Your task to perform on an android device: find photos in the google photos app Image 0: 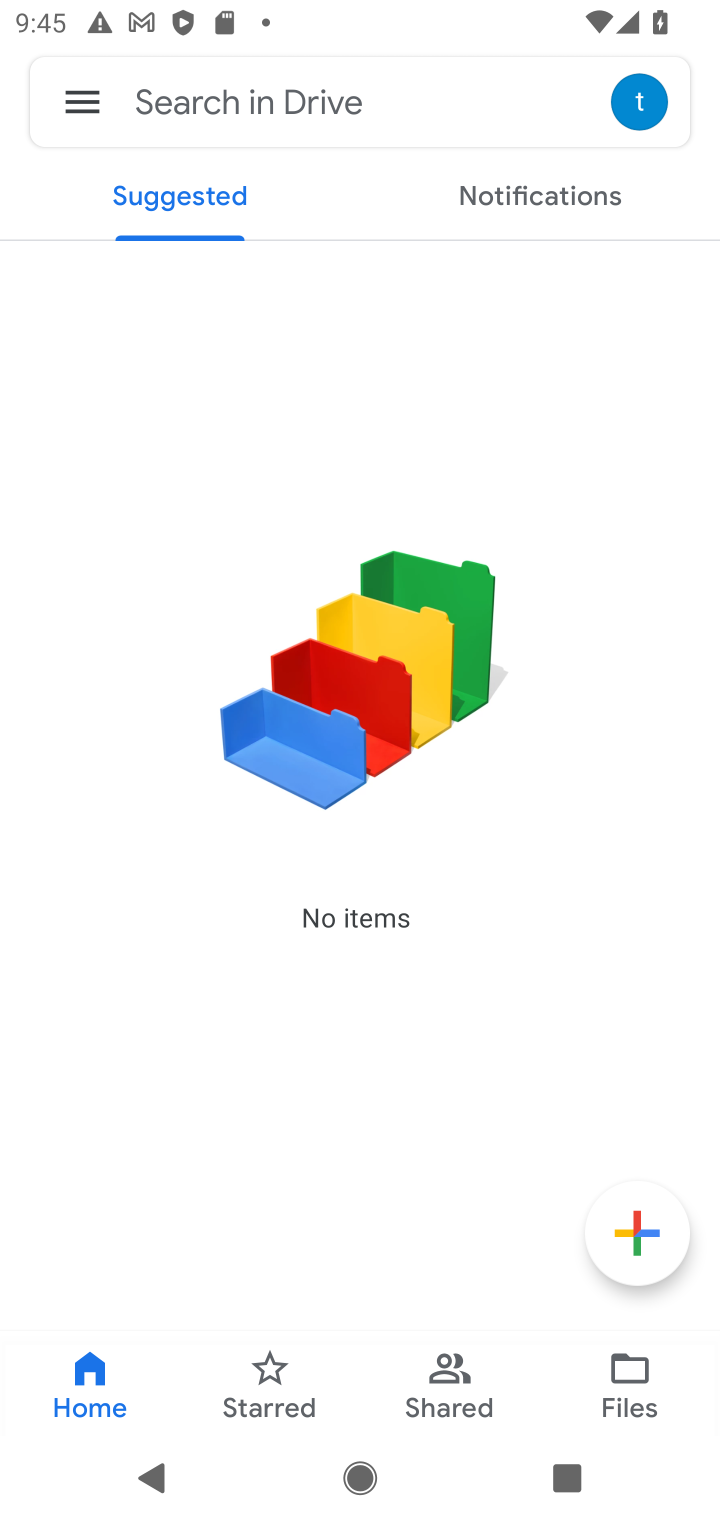
Step 0: press home button
Your task to perform on an android device: find photos in the google photos app Image 1: 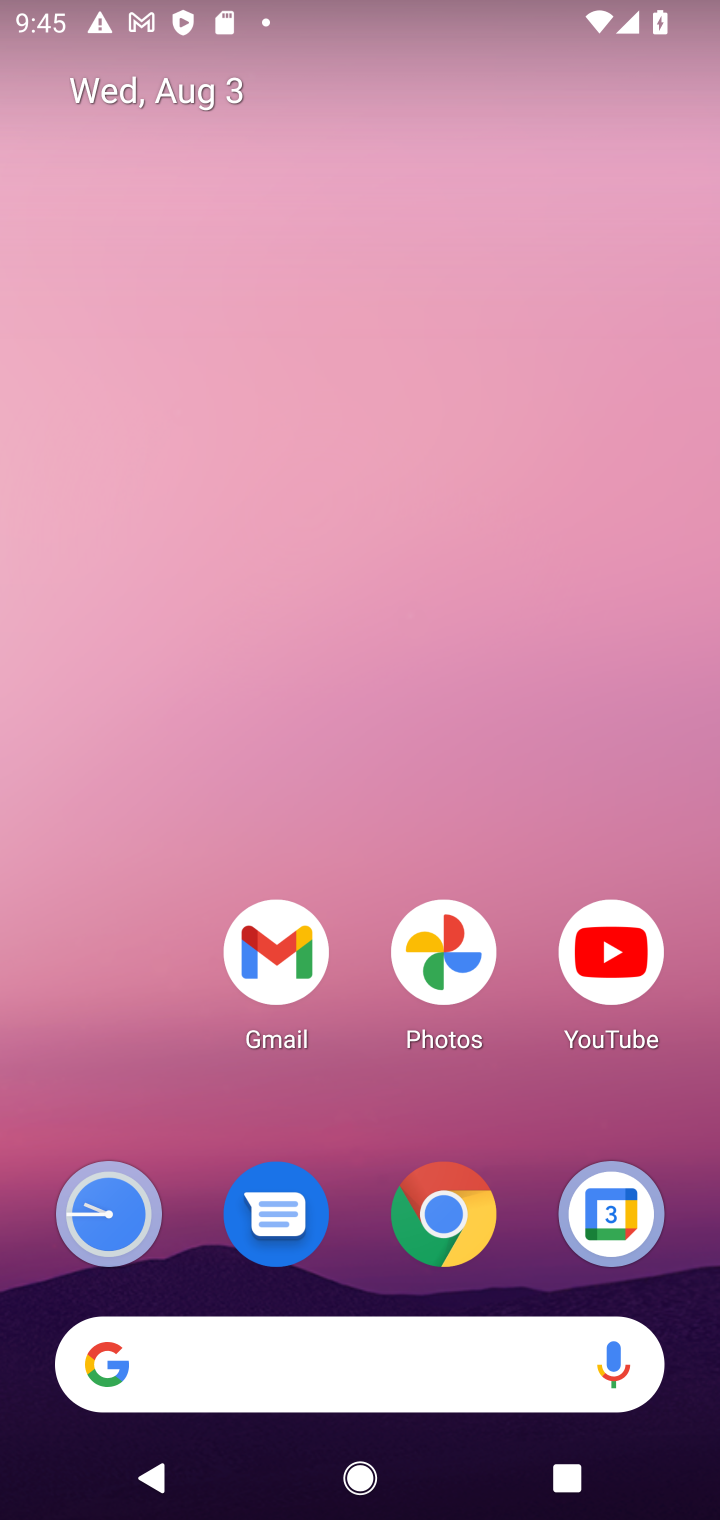
Step 1: click (105, 1038)
Your task to perform on an android device: find photos in the google photos app Image 2: 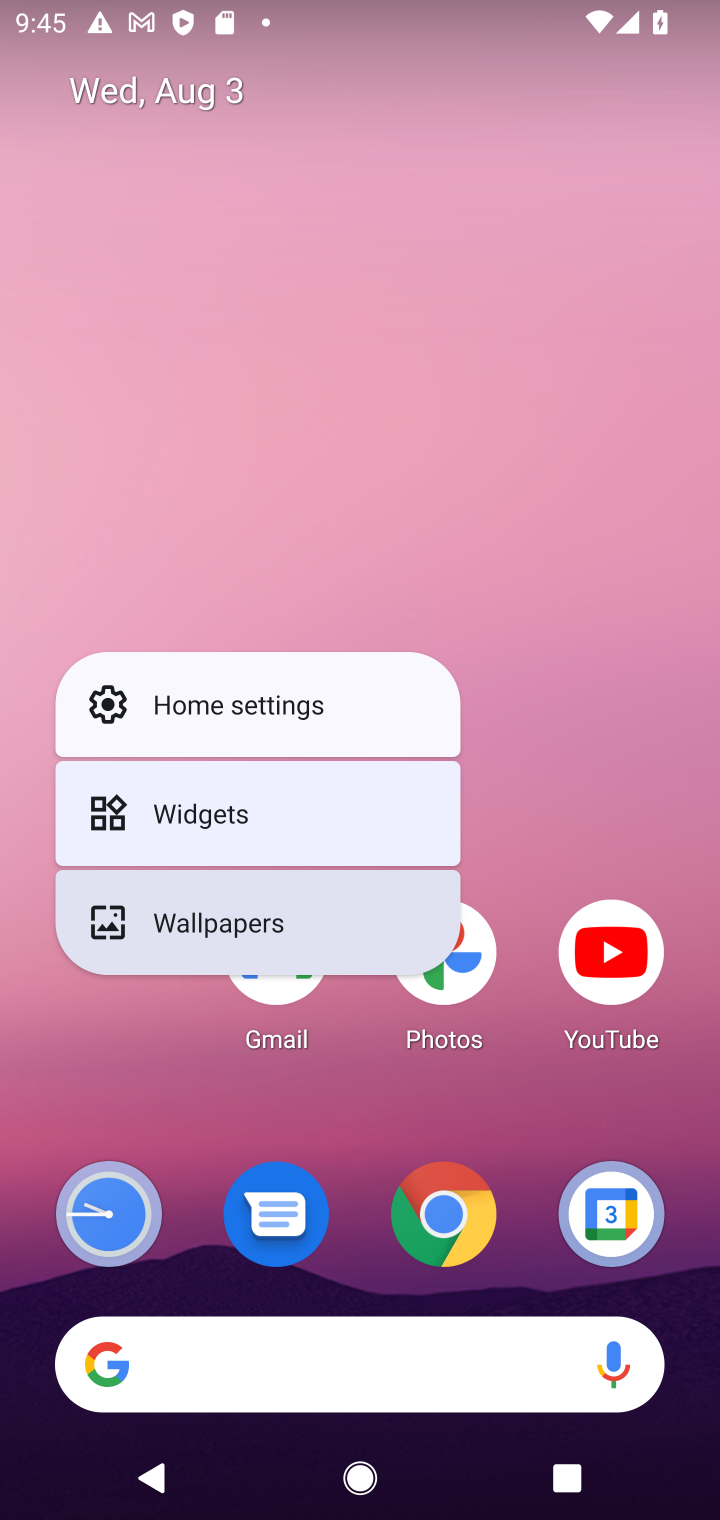
Step 2: click (176, 1097)
Your task to perform on an android device: find photos in the google photos app Image 3: 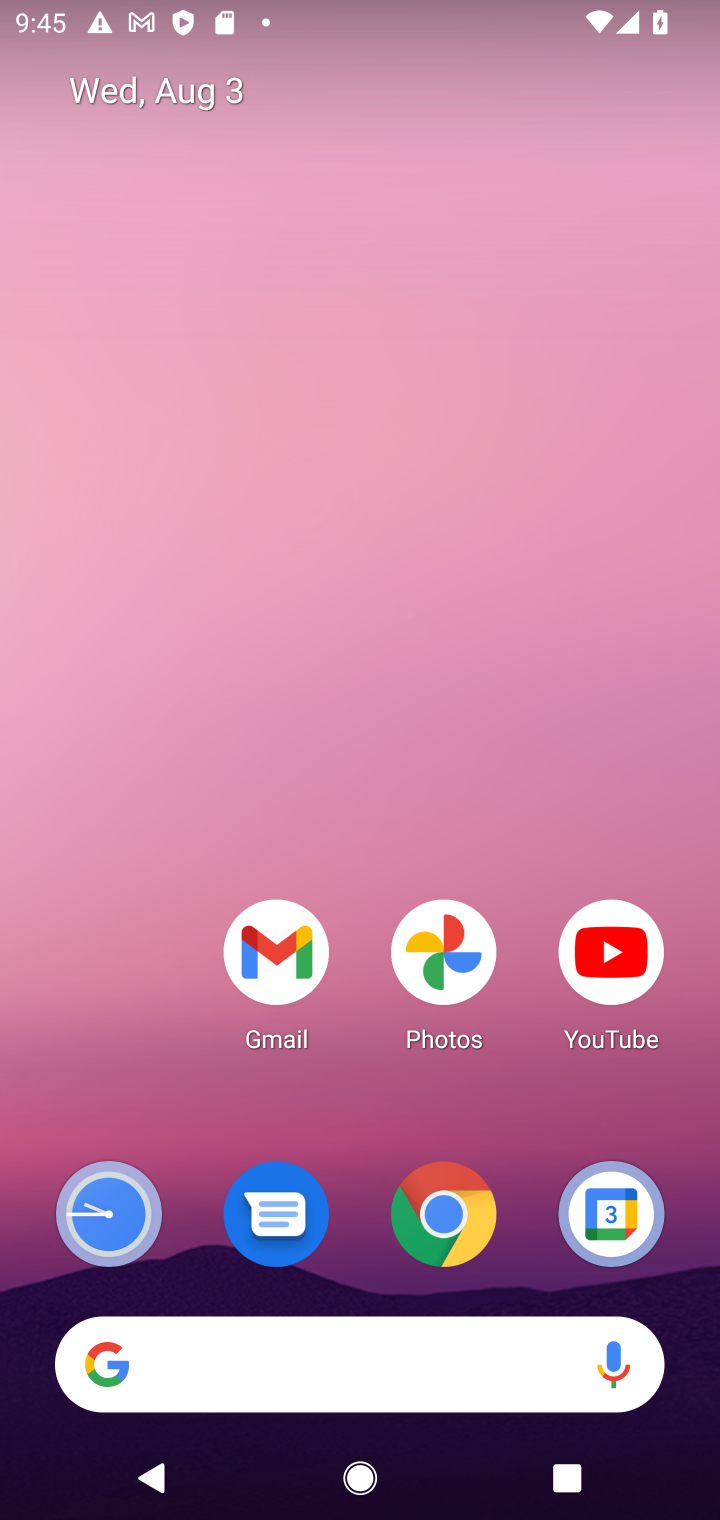
Step 3: drag from (174, 1093) to (85, 120)
Your task to perform on an android device: find photos in the google photos app Image 4: 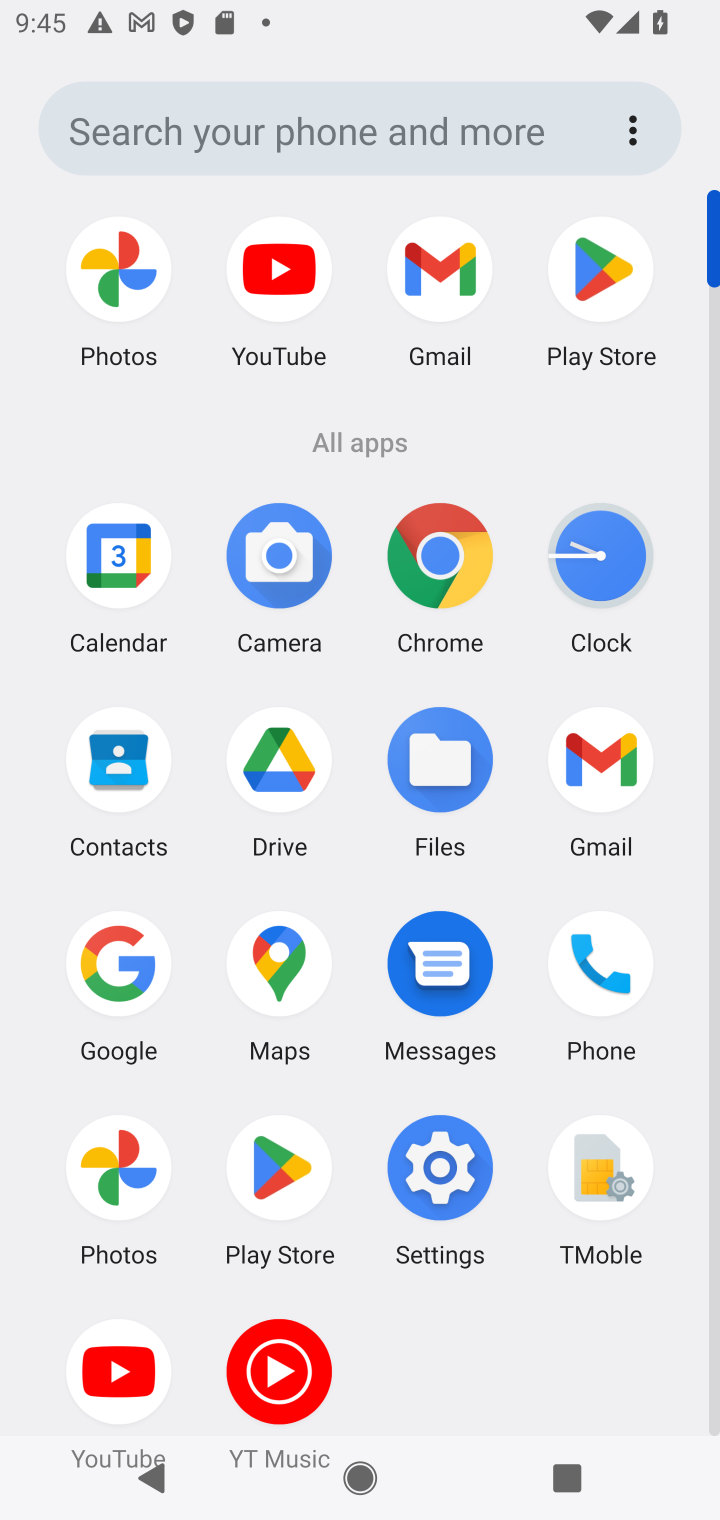
Step 4: click (116, 1186)
Your task to perform on an android device: find photos in the google photos app Image 5: 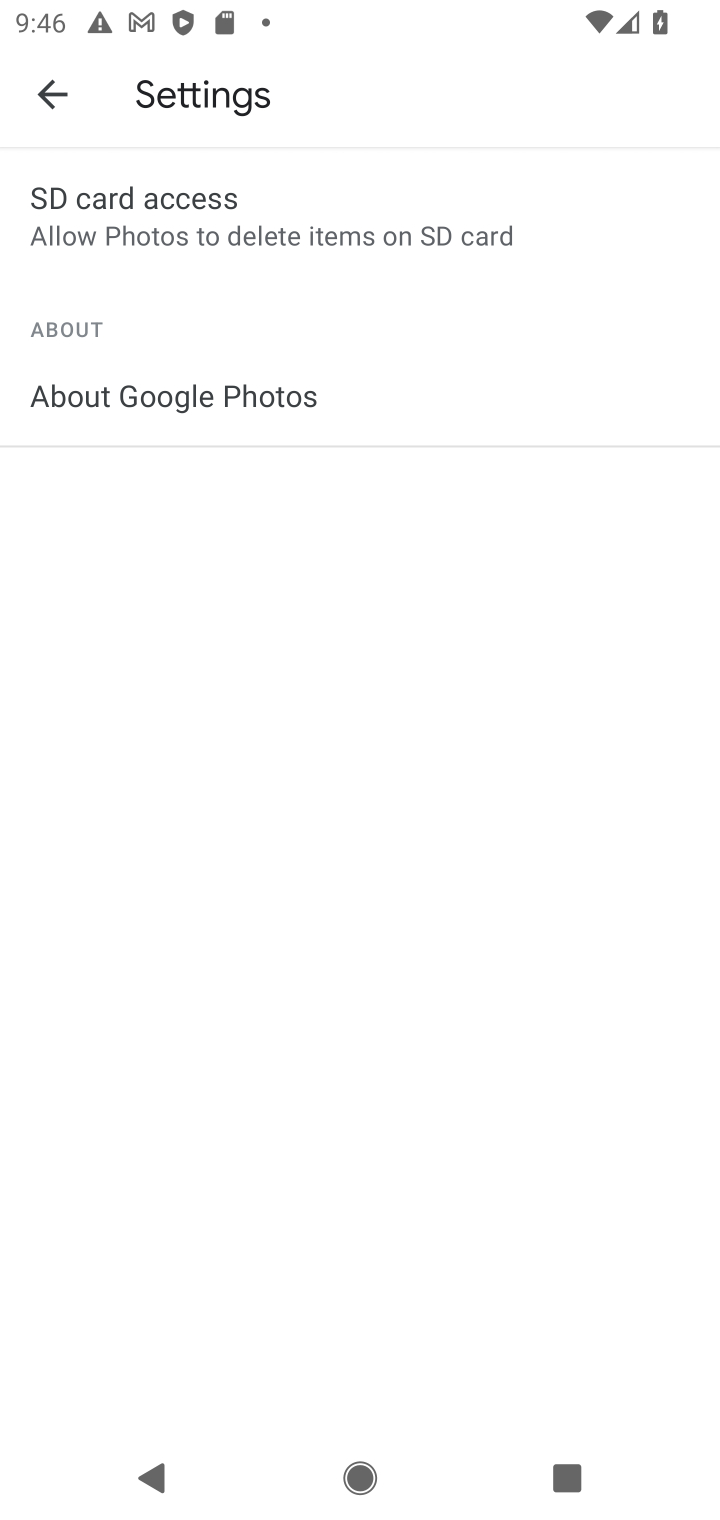
Step 5: press home button
Your task to perform on an android device: find photos in the google photos app Image 6: 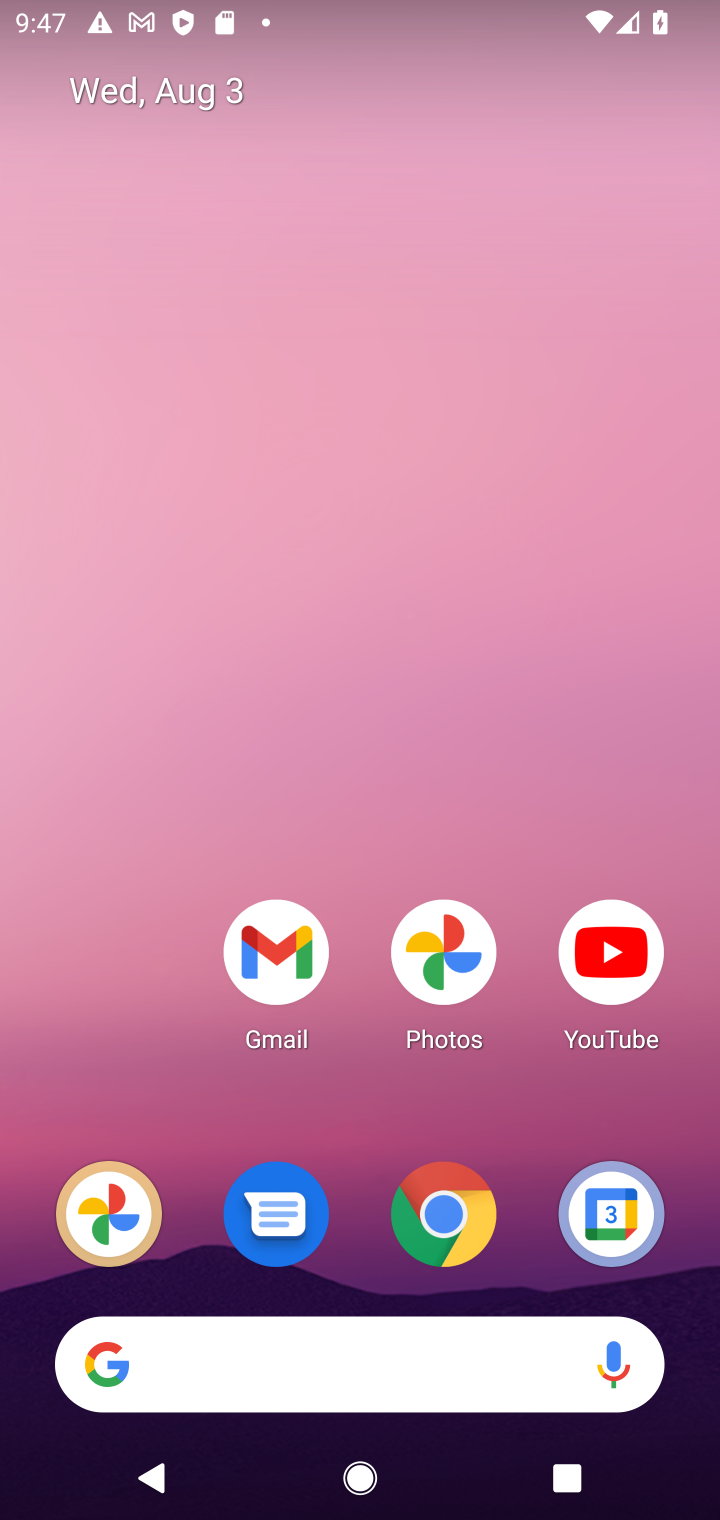
Step 6: click (412, 1007)
Your task to perform on an android device: find photos in the google photos app Image 7: 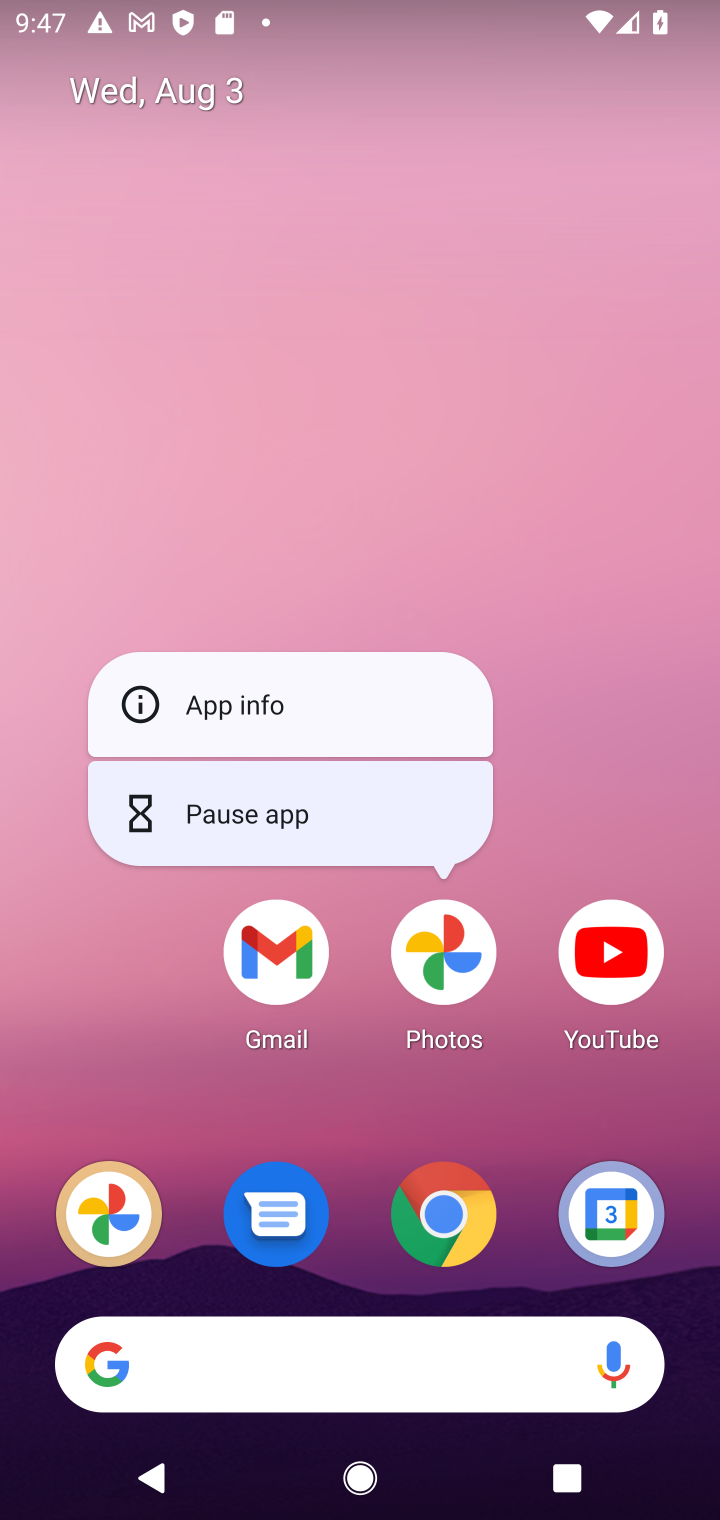
Step 7: click (412, 1007)
Your task to perform on an android device: find photos in the google photos app Image 8: 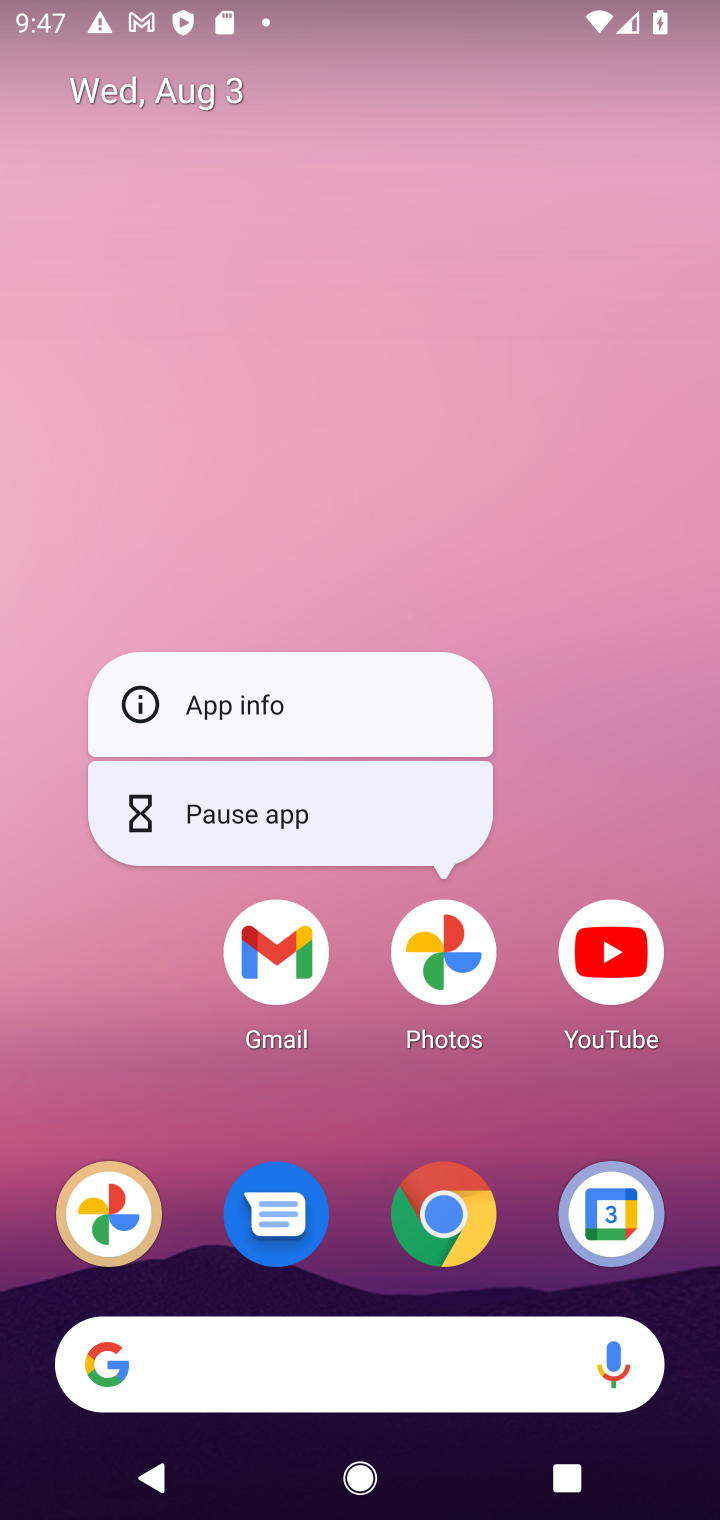
Step 8: click (416, 1007)
Your task to perform on an android device: find photos in the google photos app Image 9: 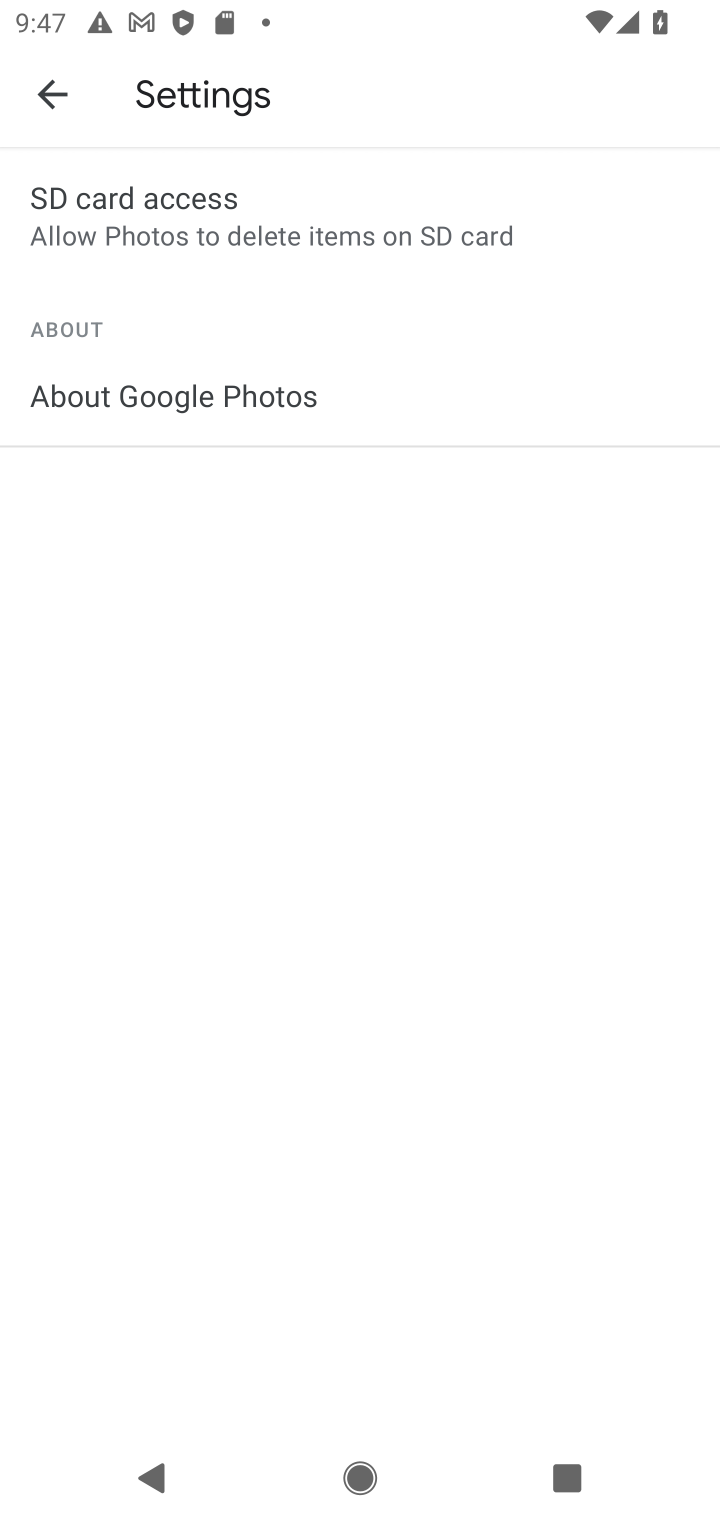
Step 9: press home button
Your task to perform on an android device: find photos in the google photos app Image 10: 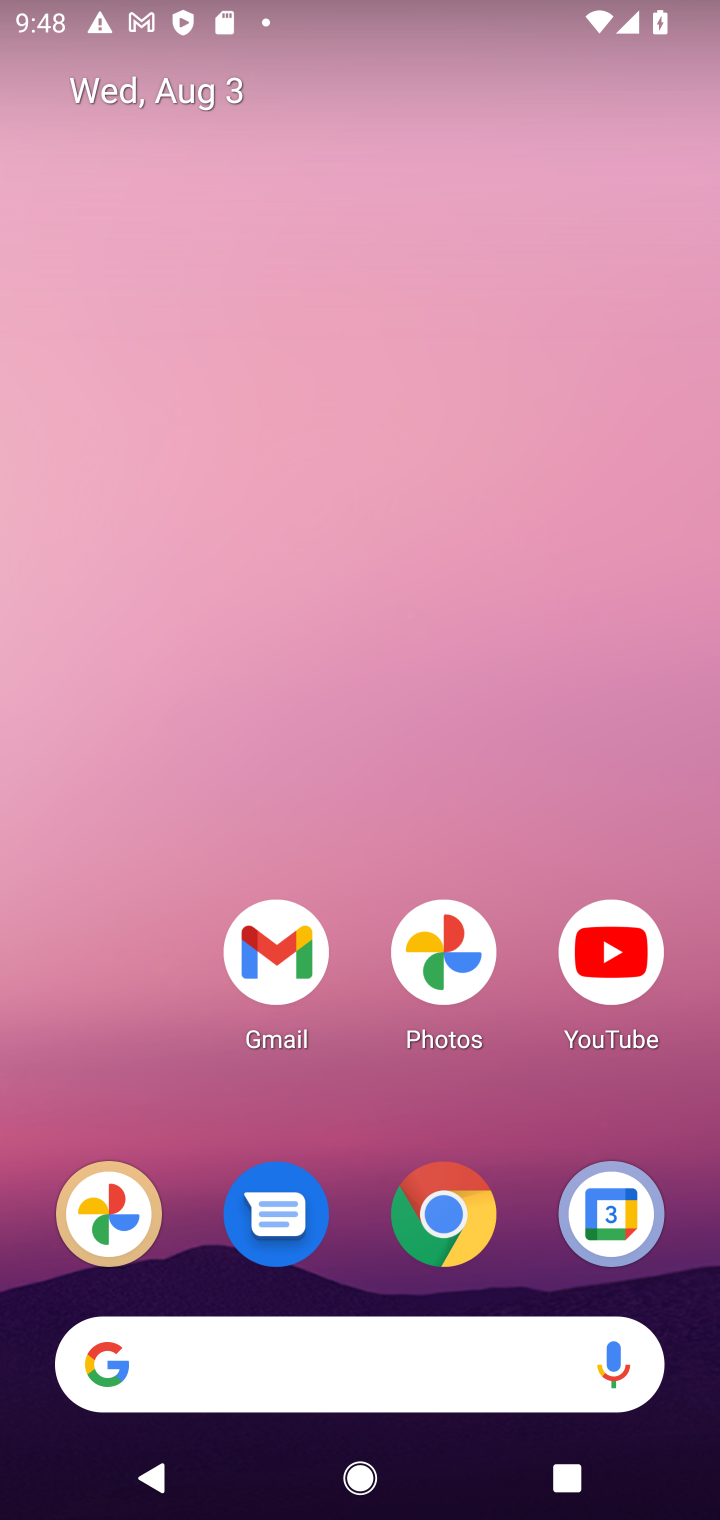
Step 10: drag from (360, 1123) to (378, 166)
Your task to perform on an android device: find photos in the google photos app Image 11: 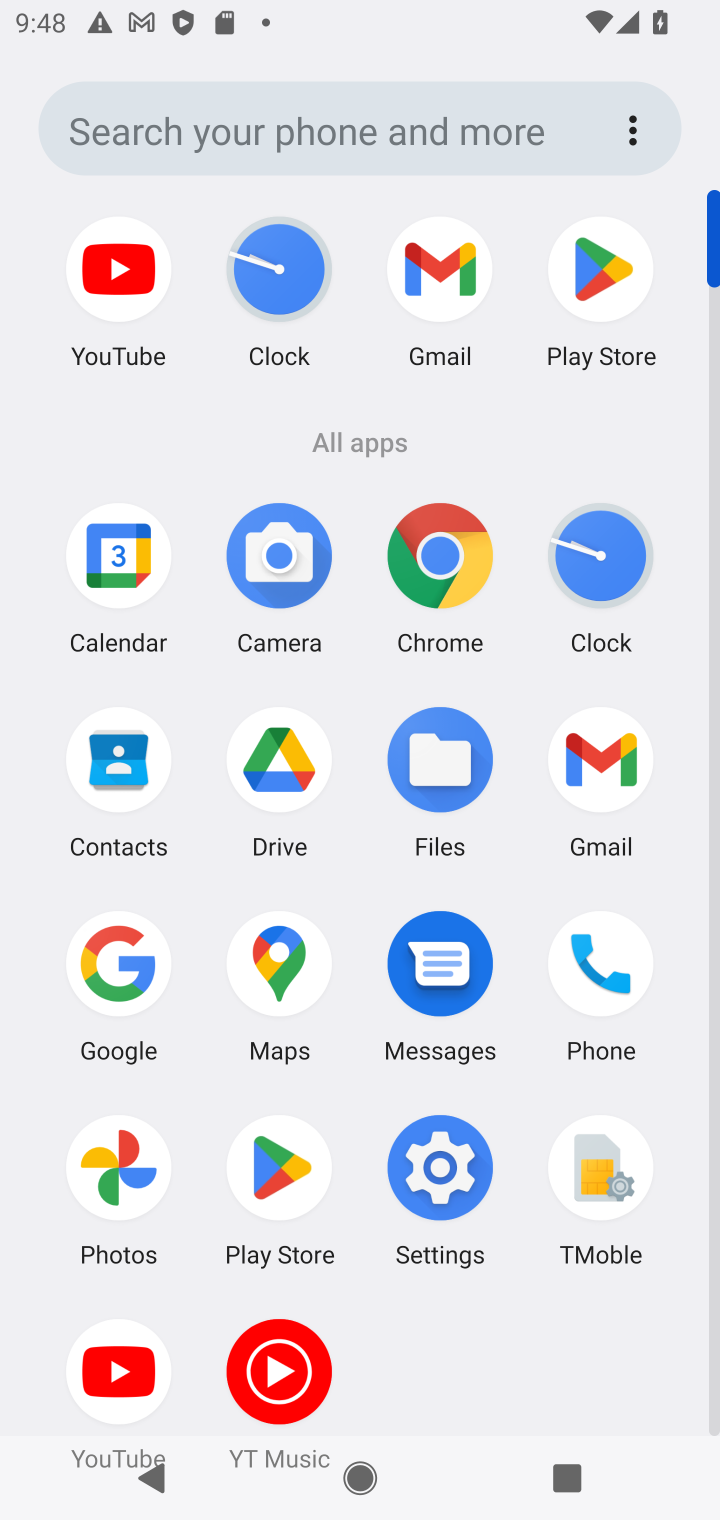
Step 11: click (107, 1190)
Your task to perform on an android device: find photos in the google photos app Image 12: 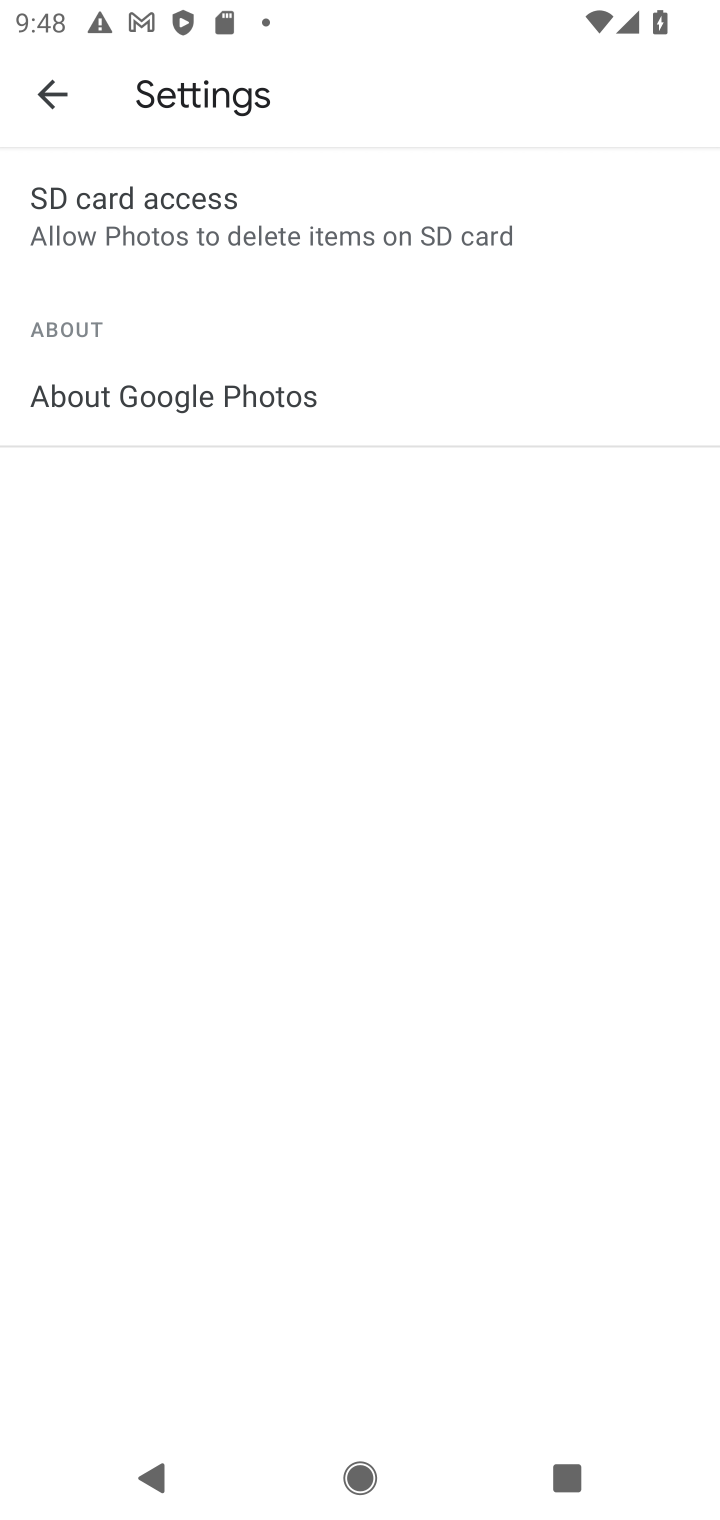
Step 12: click (76, 108)
Your task to perform on an android device: find photos in the google photos app Image 13: 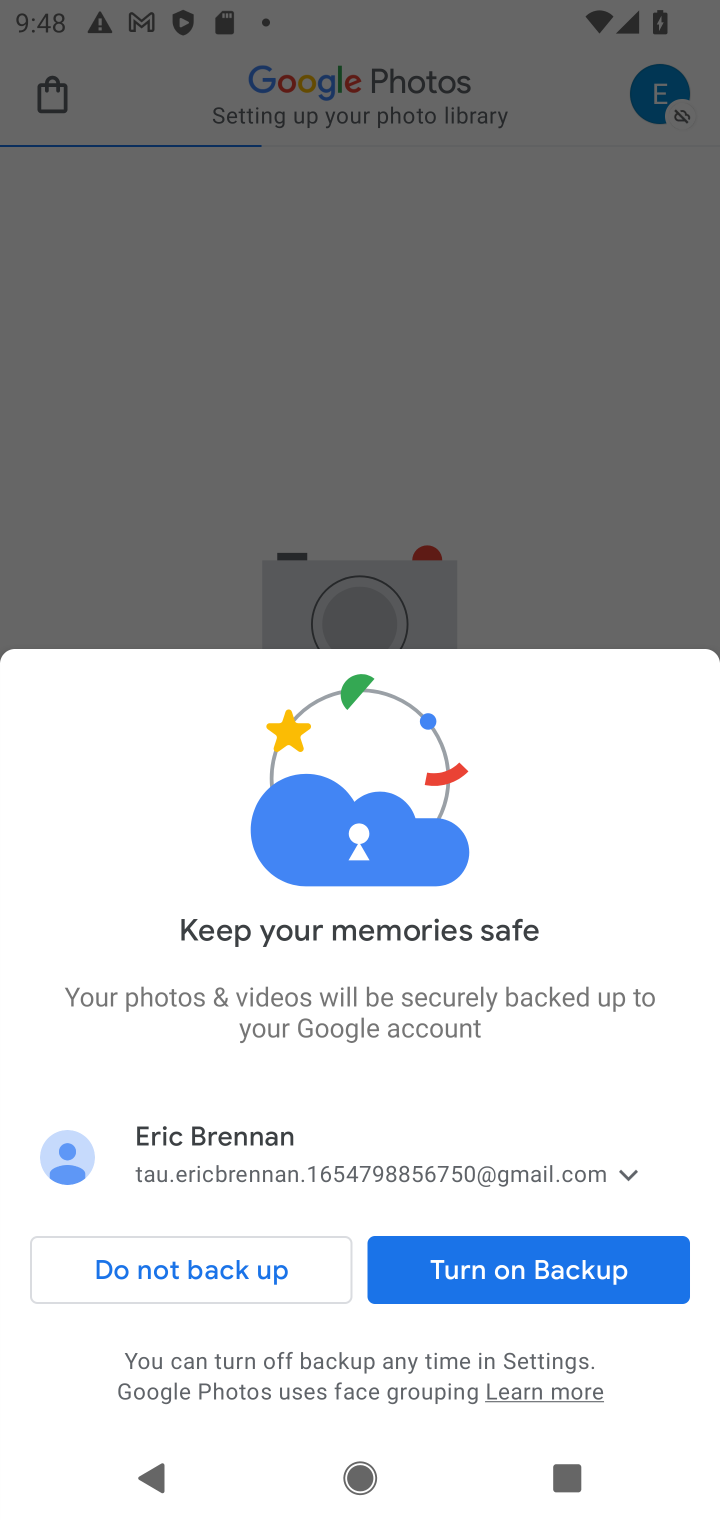
Step 13: task complete